Your task to perform on an android device: Open calendar and show me the second week of next month Image 0: 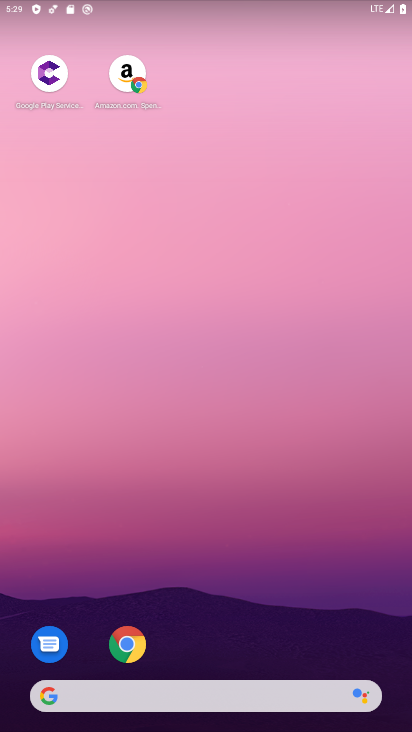
Step 0: drag from (205, 695) to (240, 15)
Your task to perform on an android device: Open calendar and show me the second week of next month Image 1: 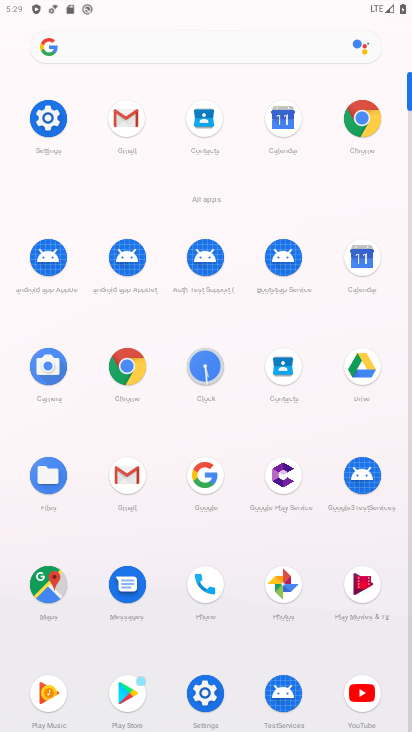
Step 1: click (357, 267)
Your task to perform on an android device: Open calendar and show me the second week of next month Image 2: 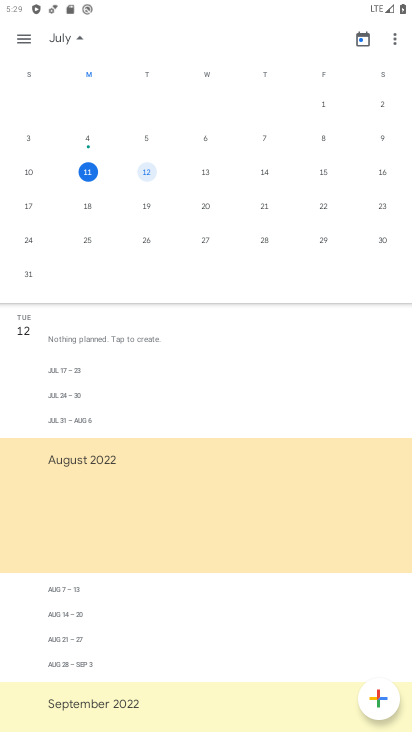
Step 2: drag from (90, 207) to (23, 208)
Your task to perform on an android device: Open calendar and show me the second week of next month Image 3: 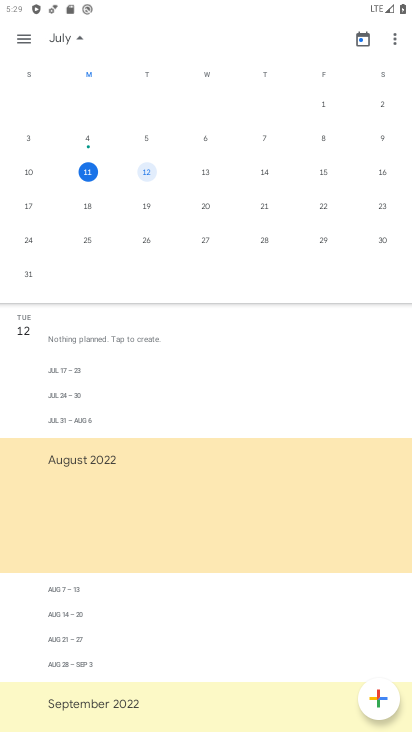
Step 3: drag from (350, 171) to (21, 229)
Your task to perform on an android device: Open calendar and show me the second week of next month Image 4: 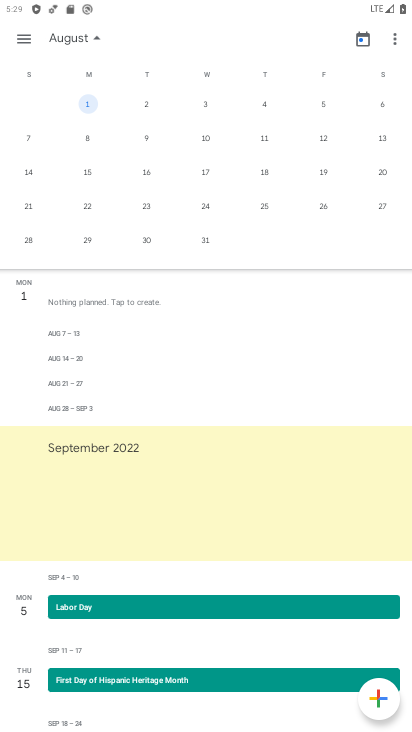
Step 4: click (210, 138)
Your task to perform on an android device: Open calendar and show me the second week of next month Image 5: 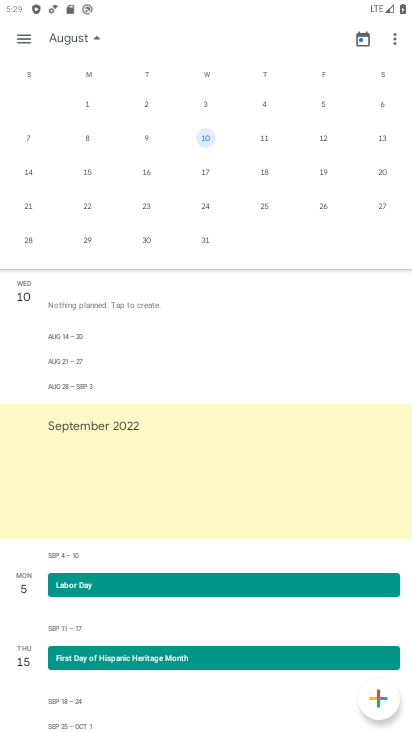
Step 5: click (19, 32)
Your task to perform on an android device: Open calendar and show me the second week of next month Image 6: 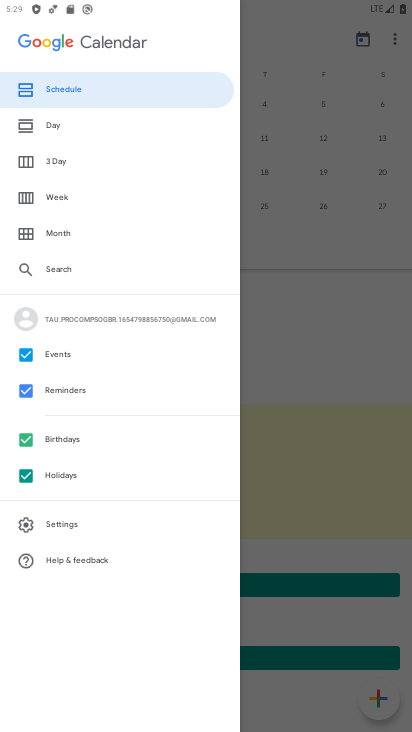
Step 6: click (57, 195)
Your task to perform on an android device: Open calendar and show me the second week of next month Image 7: 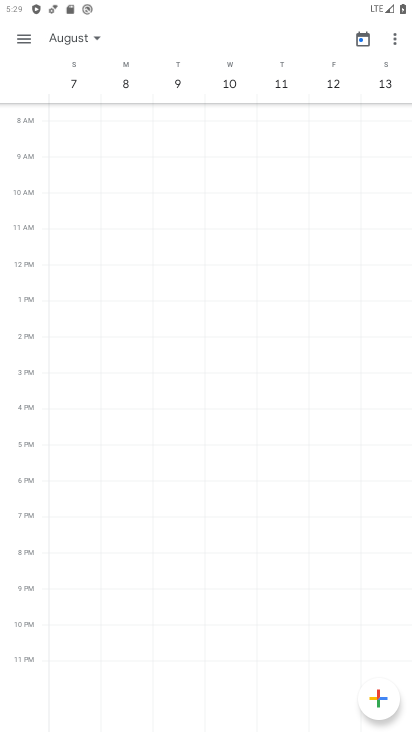
Step 7: task complete